Your task to perform on an android device: change text size in settings app Image 0: 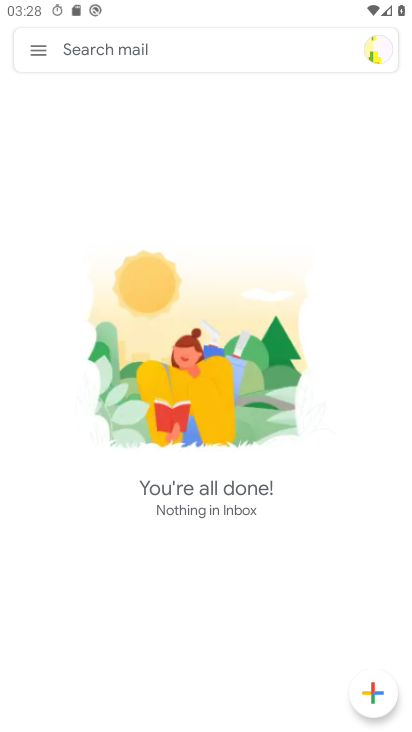
Step 0: press home button
Your task to perform on an android device: change text size in settings app Image 1: 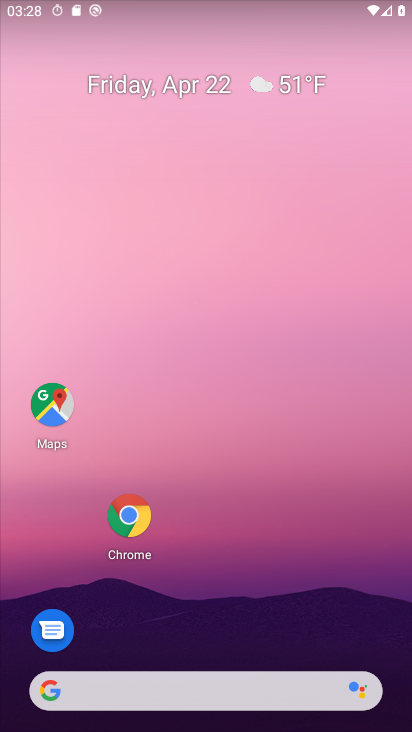
Step 1: click (351, 219)
Your task to perform on an android device: change text size in settings app Image 2: 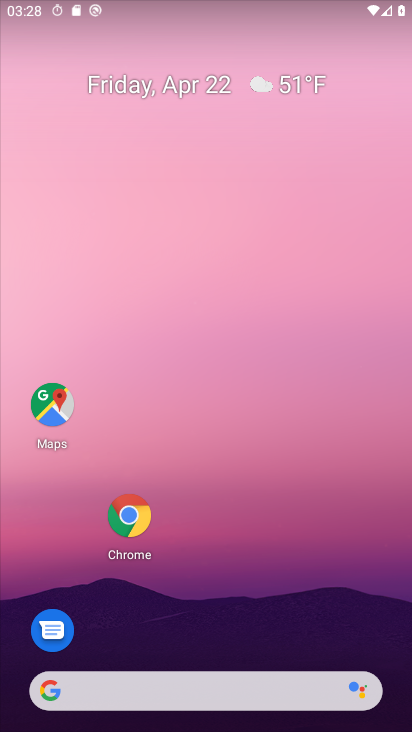
Step 2: click (353, 213)
Your task to perform on an android device: change text size in settings app Image 3: 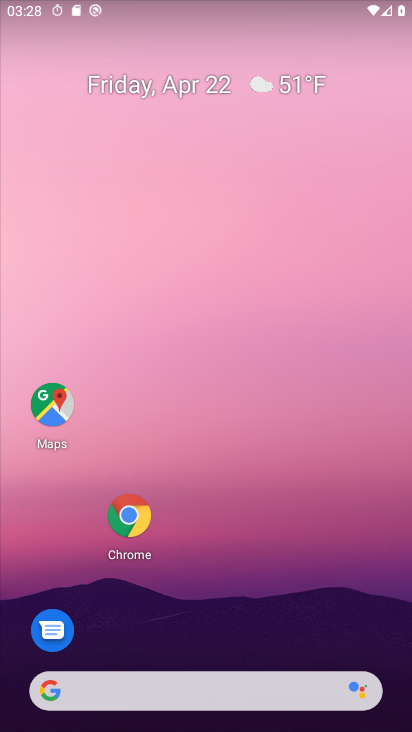
Step 3: drag from (394, 288) to (409, 197)
Your task to perform on an android device: change text size in settings app Image 4: 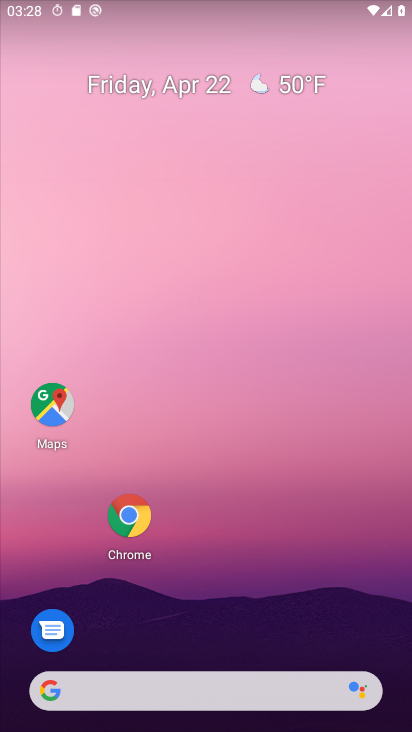
Step 4: drag from (342, 211) to (315, 74)
Your task to perform on an android device: change text size in settings app Image 5: 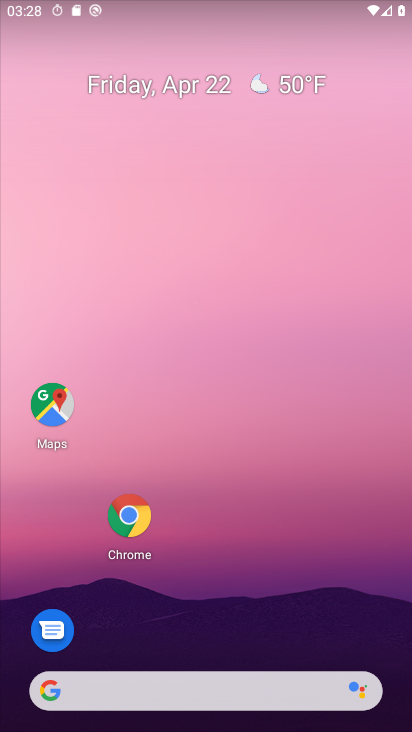
Step 5: drag from (389, 540) to (341, 255)
Your task to perform on an android device: change text size in settings app Image 6: 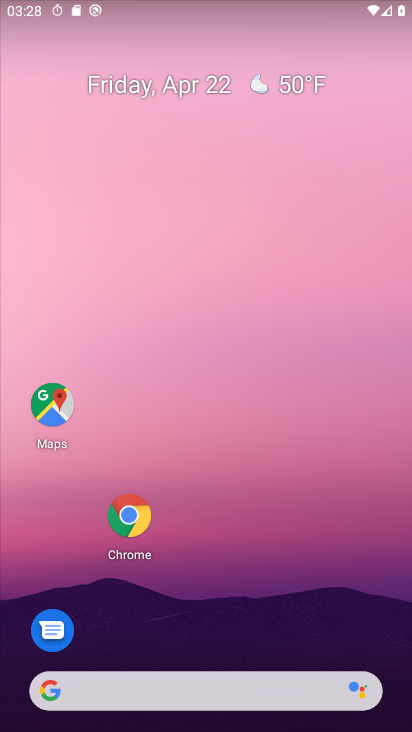
Step 6: click (378, 99)
Your task to perform on an android device: change text size in settings app Image 7: 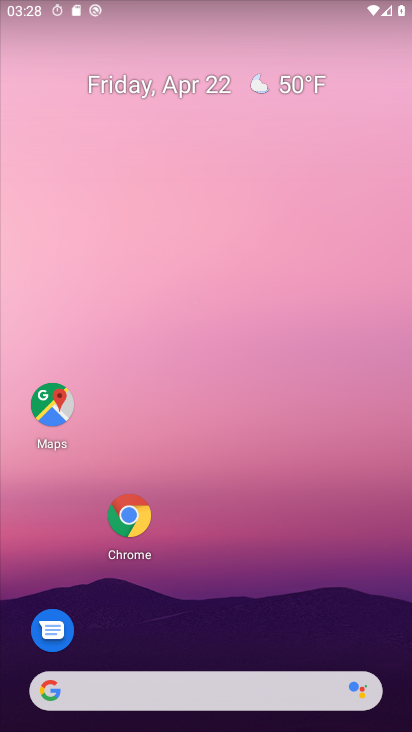
Step 7: drag from (390, 657) to (351, 192)
Your task to perform on an android device: change text size in settings app Image 8: 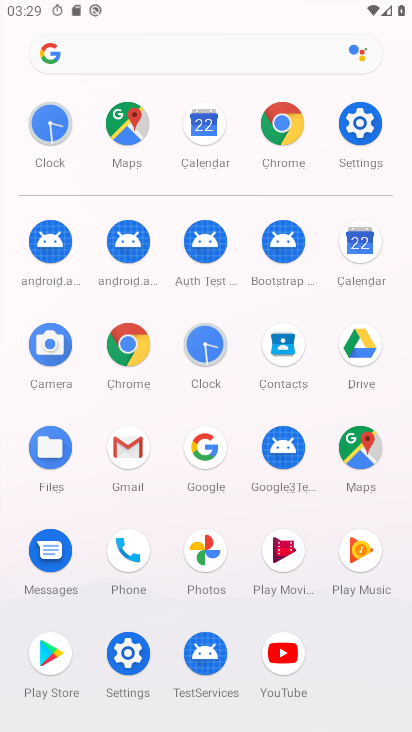
Step 8: click (357, 133)
Your task to perform on an android device: change text size in settings app Image 9: 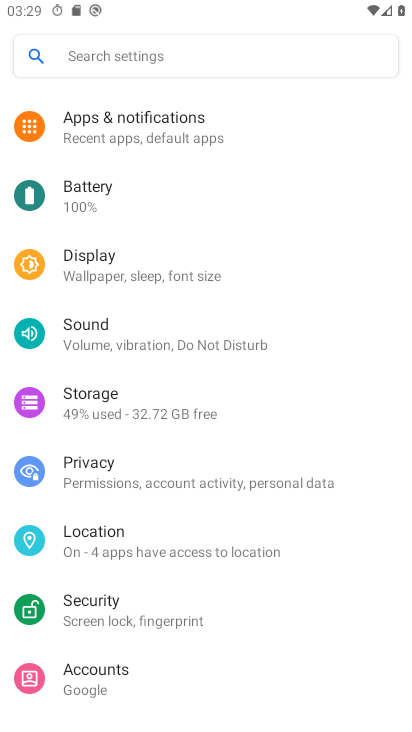
Step 9: click (82, 261)
Your task to perform on an android device: change text size in settings app Image 10: 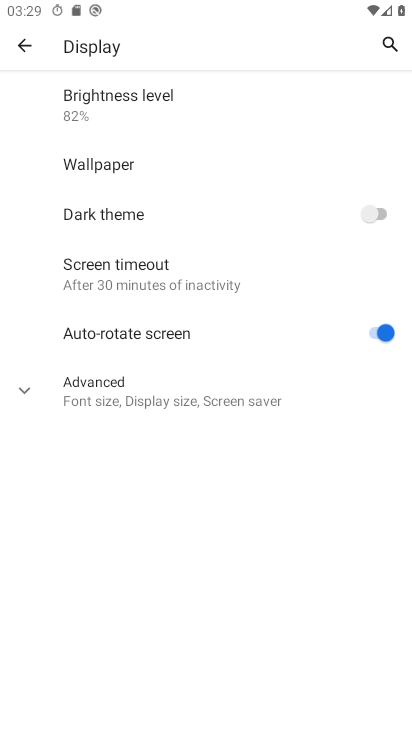
Step 10: click (95, 383)
Your task to perform on an android device: change text size in settings app Image 11: 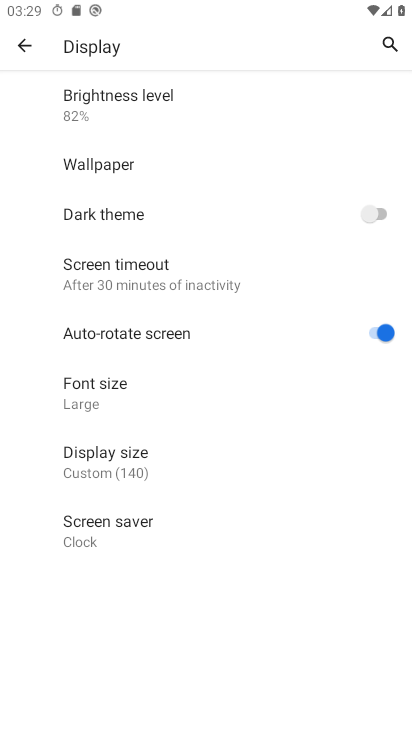
Step 11: click (84, 384)
Your task to perform on an android device: change text size in settings app Image 12: 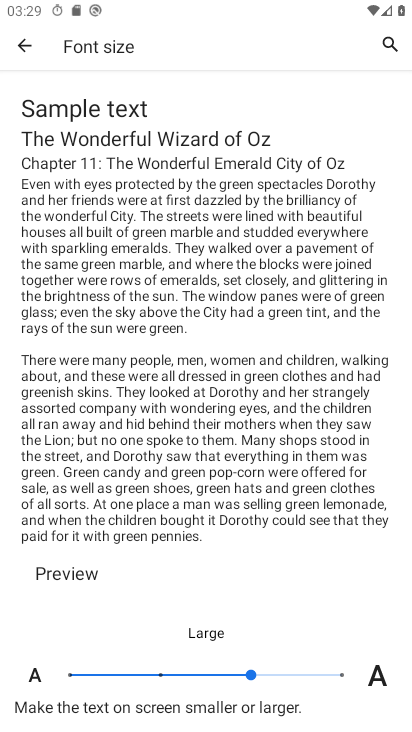
Step 12: click (208, 671)
Your task to perform on an android device: change text size in settings app Image 13: 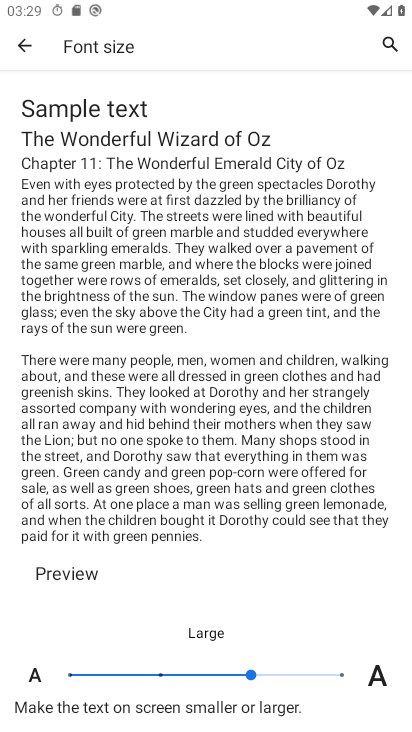
Step 13: click (187, 674)
Your task to perform on an android device: change text size in settings app Image 14: 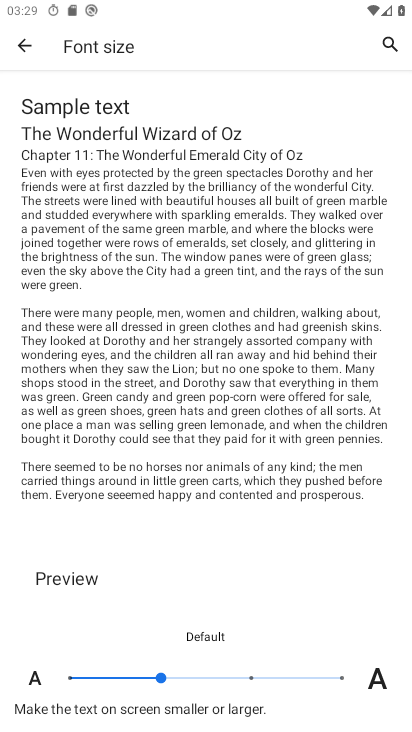
Step 14: task complete